Your task to perform on an android device: turn off smart reply in the gmail app Image 0: 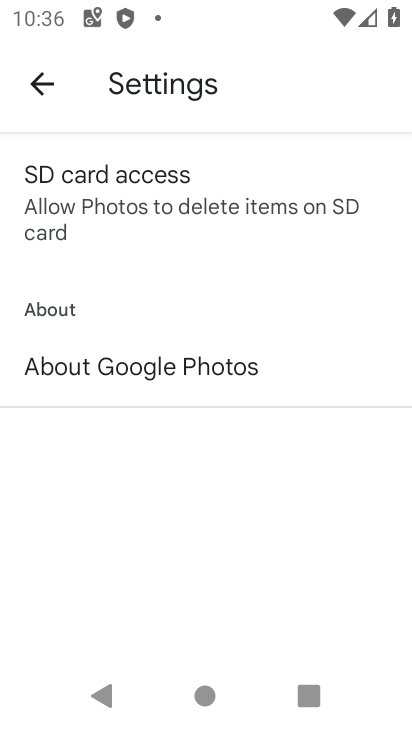
Step 0: press home button
Your task to perform on an android device: turn off smart reply in the gmail app Image 1: 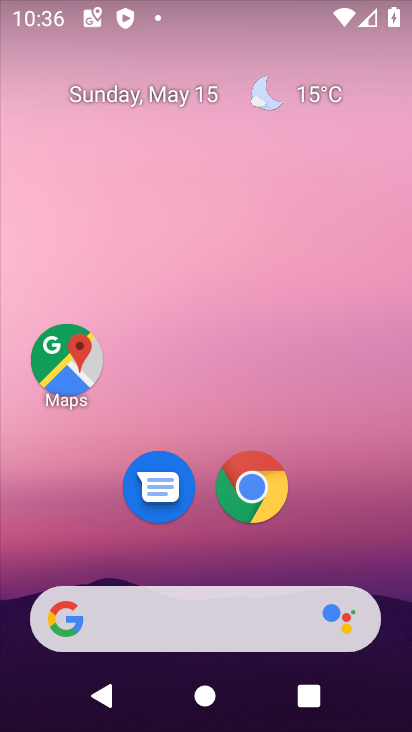
Step 1: drag from (395, 634) to (376, 61)
Your task to perform on an android device: turn off smart reply in the gmail app Image 2: 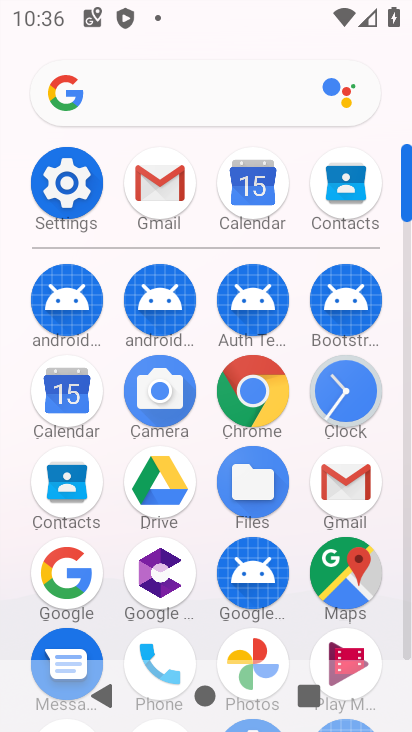
Step 2: click (405, 644)
Your task to perform on an android device: turn off smart reply in the gmail app Image 3: 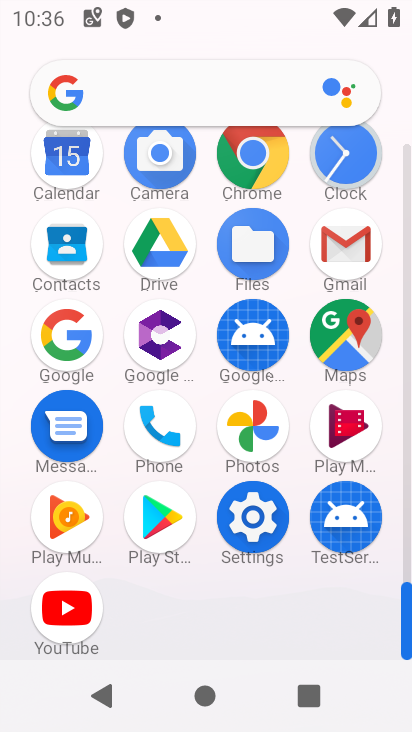
Step 3: click (344, 243)
Your task to perform on an android device: turn off smart reply in the gmail app Image 4: 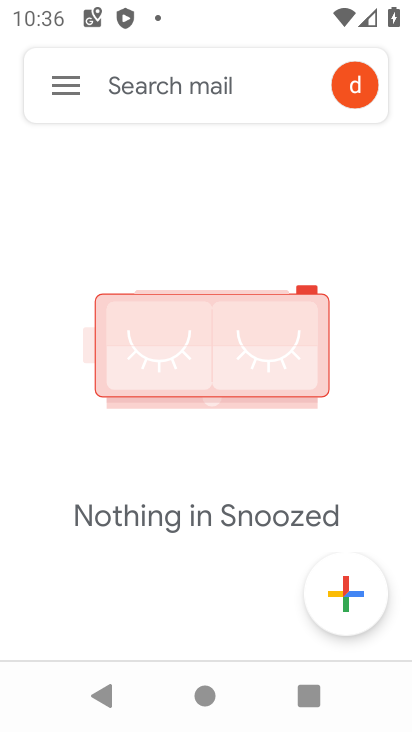
Step 4: click (69, 85)
Your task to perform on an android device: turn off smart reply in the gmail app Image 5: 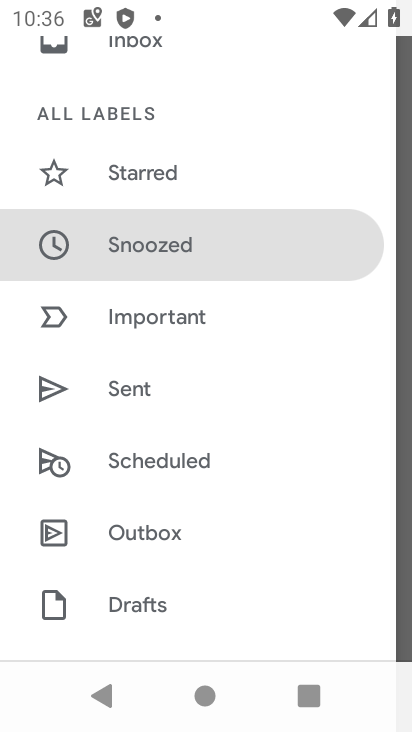
Step 5: drag from (211, 608) to (237, 154)
Your task to perform on an android device: turn off smart reply in the gmail app Image 6: 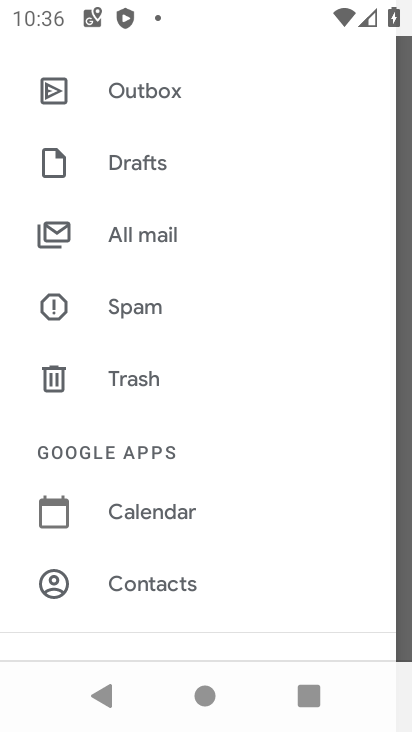
Step 6: drag from (221, 579) to (221, 164)
Your task to perform on an android device: turn off smart reply in the gmail app Image 7: 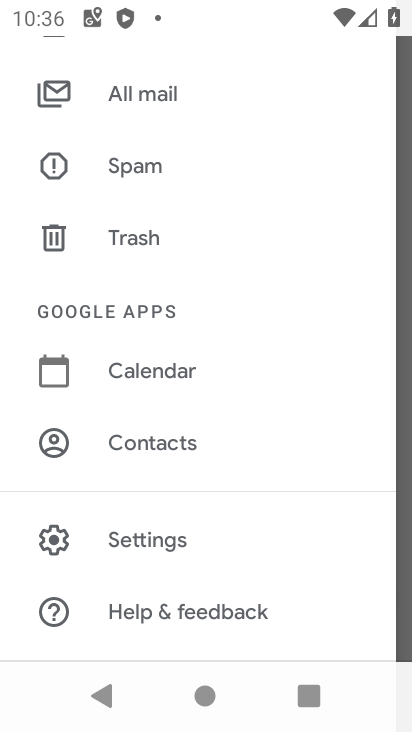
Step 7: click (139, 554)
Your task to perform on an android device: turn off smart reply in the gmail app Image 8: 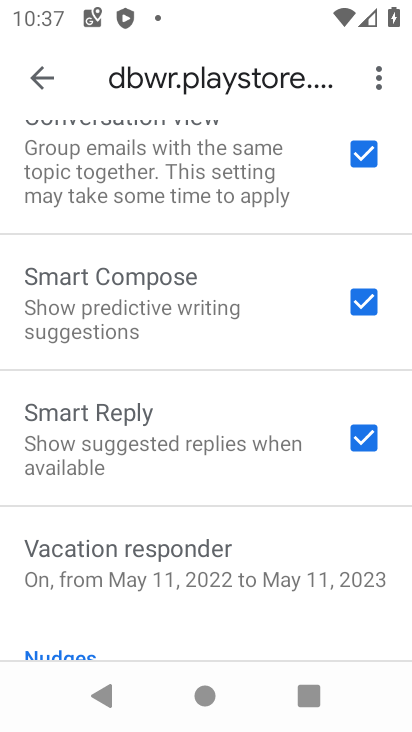
Step 8: click (376, 439)
Your task to perform on an android device: turn off smart reply in the gmail app Image 9: 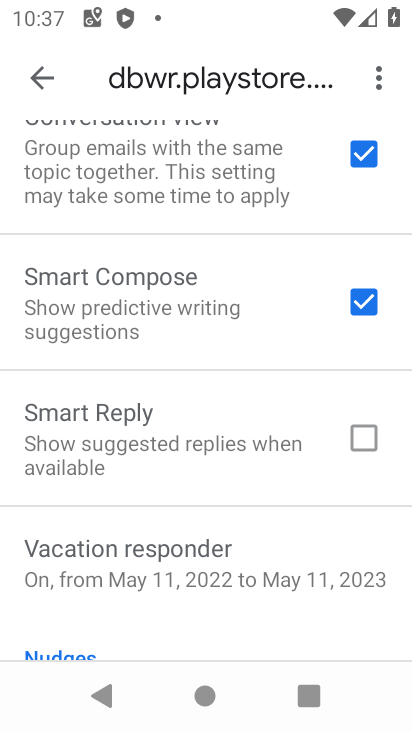
Step 9: task complete